Your task to perform on an android device: Search for Italian restaurants on Maps Image 0: 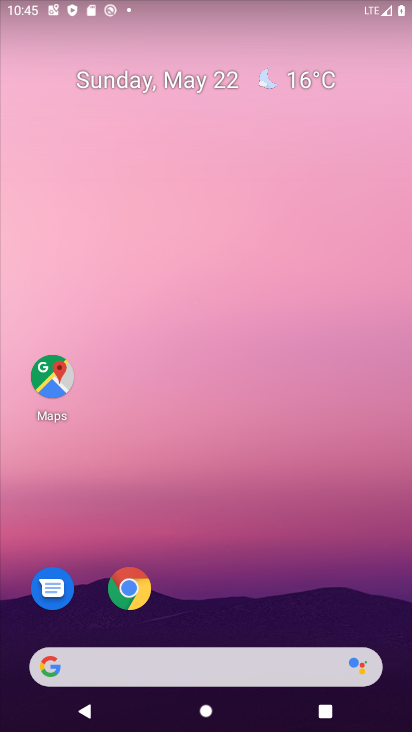
Step 0: click (46, 394)
Your task to perform on an android device: Search for Italian restaurants on Maps Image 1: 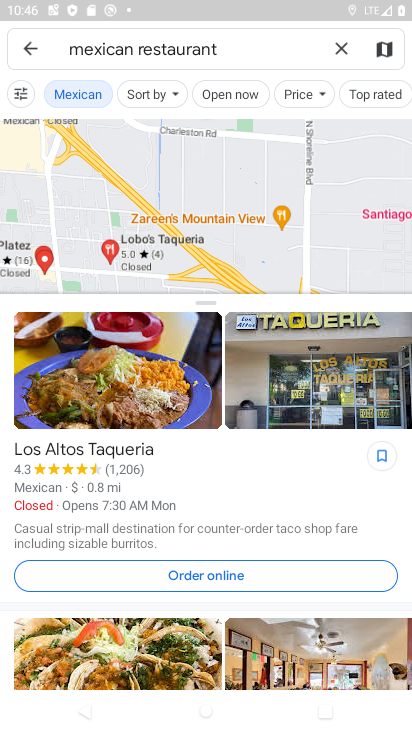
Step 1: click (336, 43)
Your task to perform on an android device: Search for Italian restaurants on Maps Image 2: 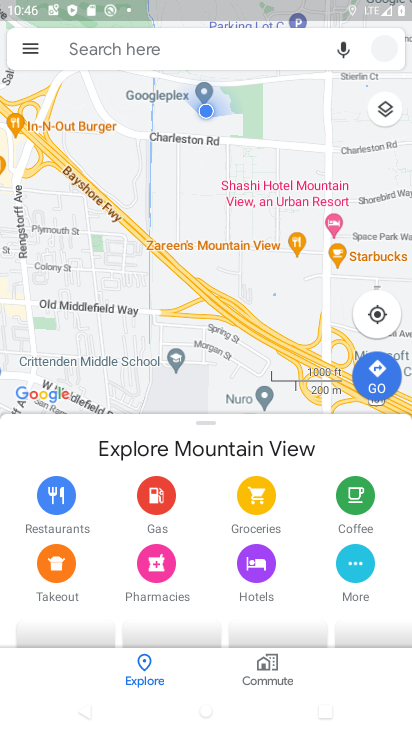
Step 2: click (239, 49)
Your task to perform on an android device: Search for Italian restaurants on Maps Image 3: 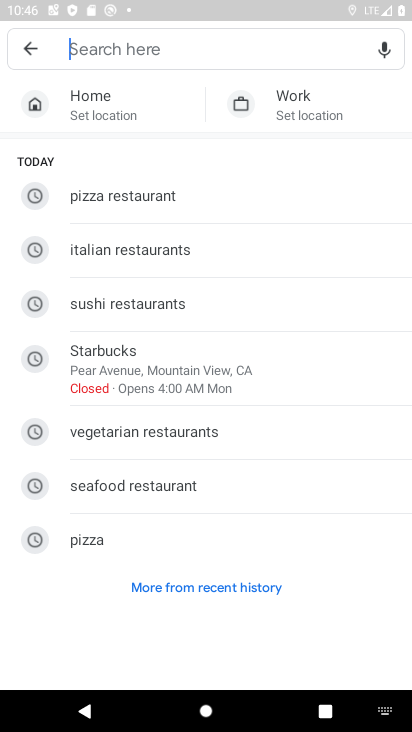
Step 3: click (118, 253)
Your task to perform on an android device: Search for Italian restaurants on Maps Image 4: 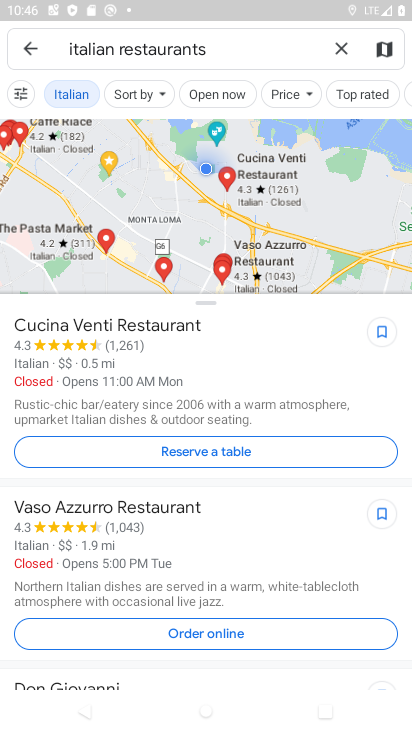
Step 4: task complete